Your task to perform on an android device: open chrome privacy settings Image 0: 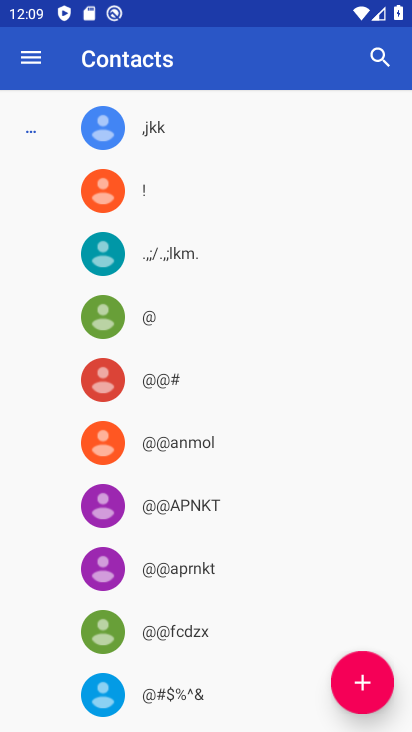
Step 0: press home button
Your task to perform on an android device: open chrome privacy settings Image 1: 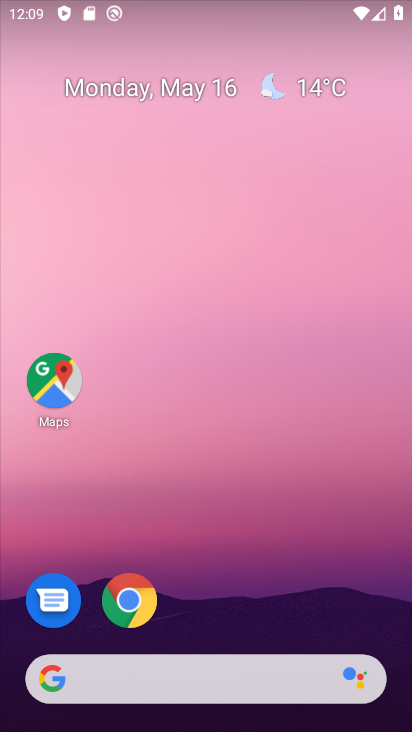
Step 1: drag from (221, 578) to (318, 52)
Your task to perform on an android device: open chrome privacy settings Image 2: 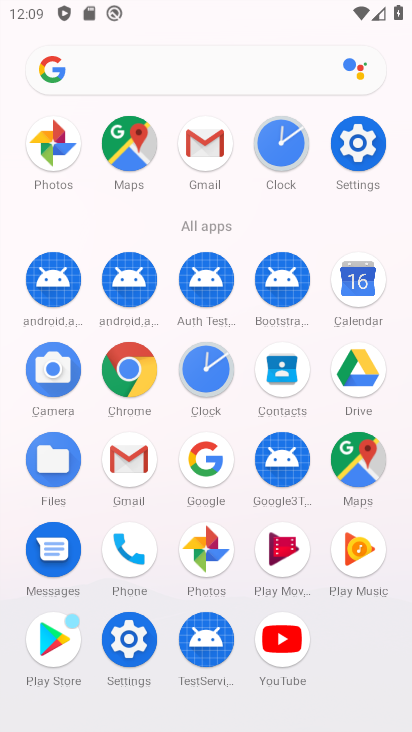
Step 2: click (129, 364)
Your task to perform on an android device: open chrome privacy settings Image 3: 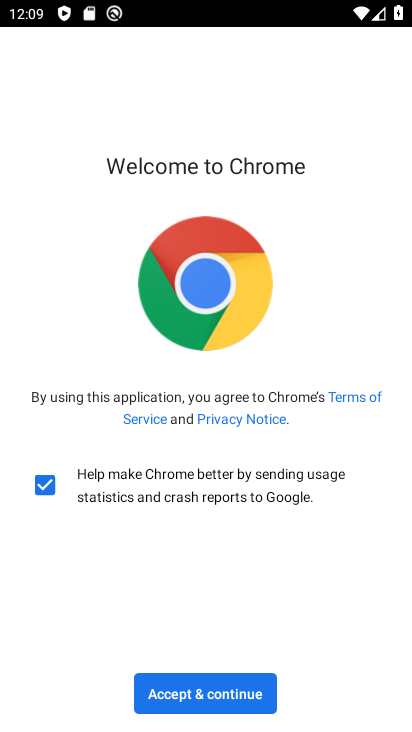
Step 3: click (203, 698)
Your task to perform on an android device: open chrome privacy settings Image 4: 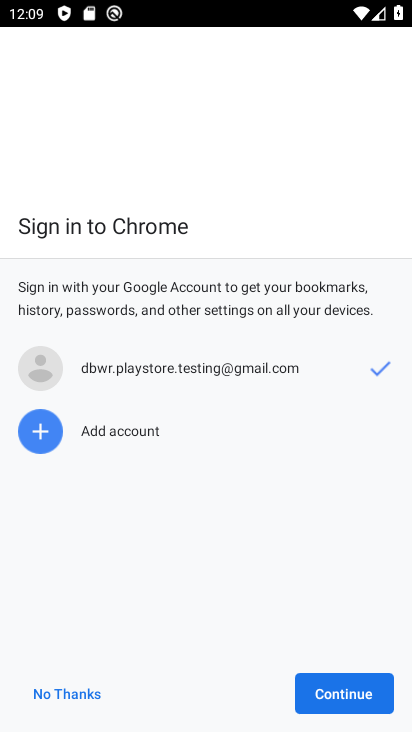
Step 4: click (313, 683)
Your task to perform on an android device: open chrome privacy settings Image 5: 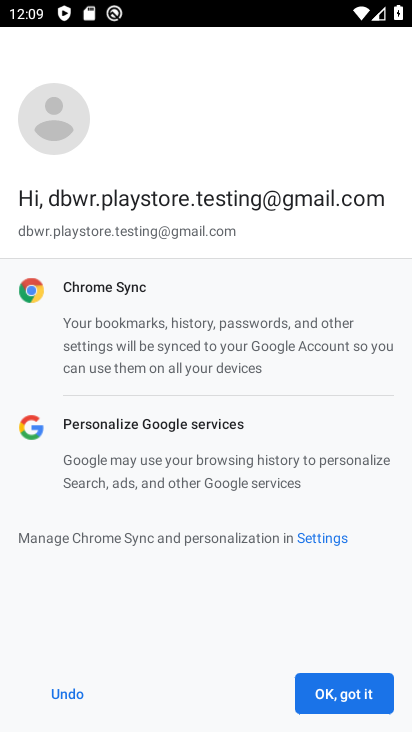
Step 5: click (333, 688)
Your task to perform on an android device: open chrome privacy settings Image 6: 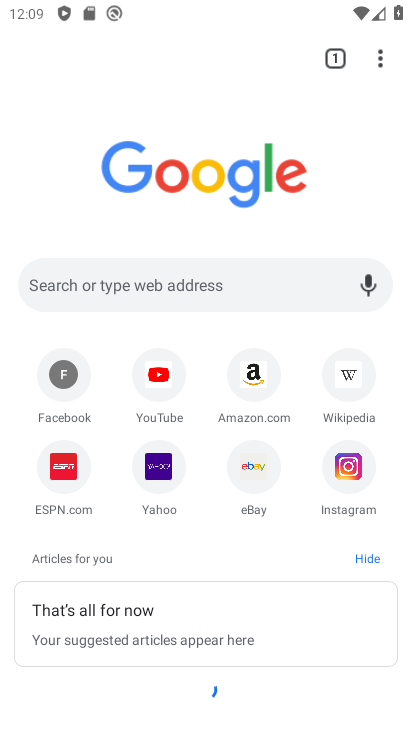
Step 6: drag from (375, 60) to (155, 490)
Your task to perform on an android device: open chrome privacy settings Image 7: 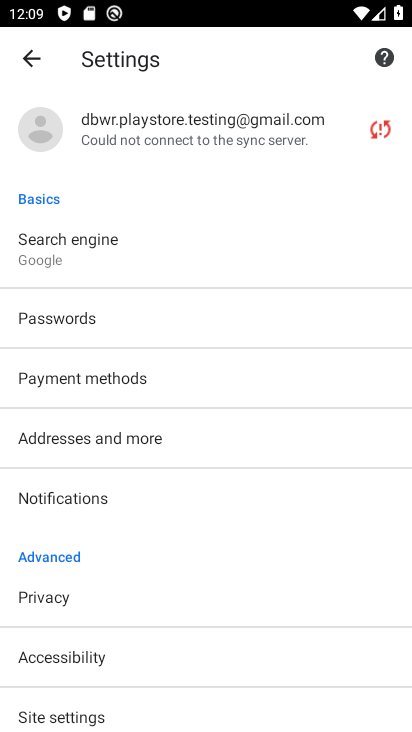
Step 7: click (35, 591)
Your task to perform on an android device: open chrome privacy settings Image 8: 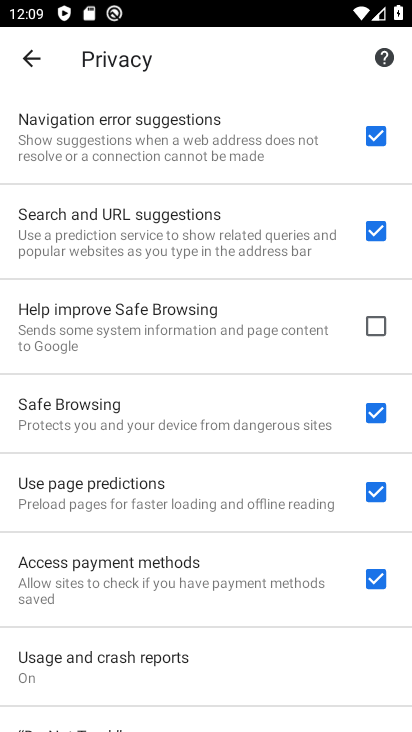
Step 8: task complete